Your task to perform on an android device: Open location settings Image 0: 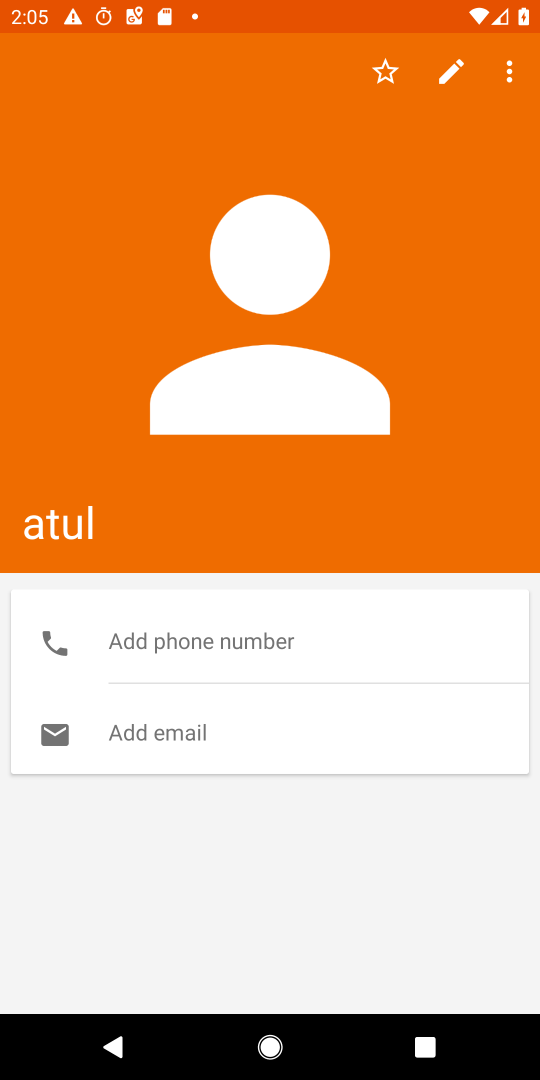
Step 0: press home button
Your task to perform on an android device: Open location settings Image 1: 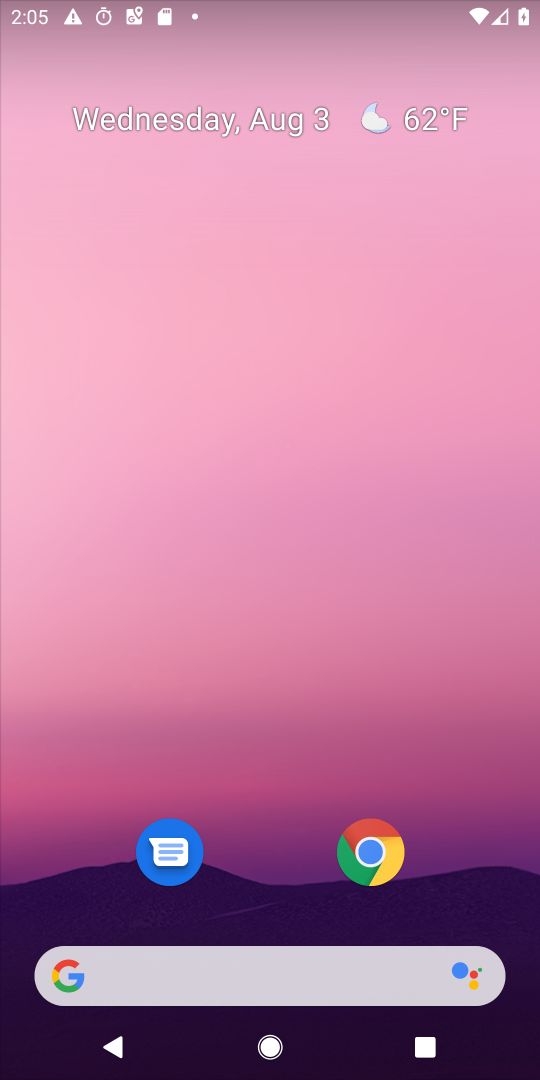
Step 1: drag from (442, 644) to (275, 5)
Your task to perform on an android device: Open location settings Image 2: 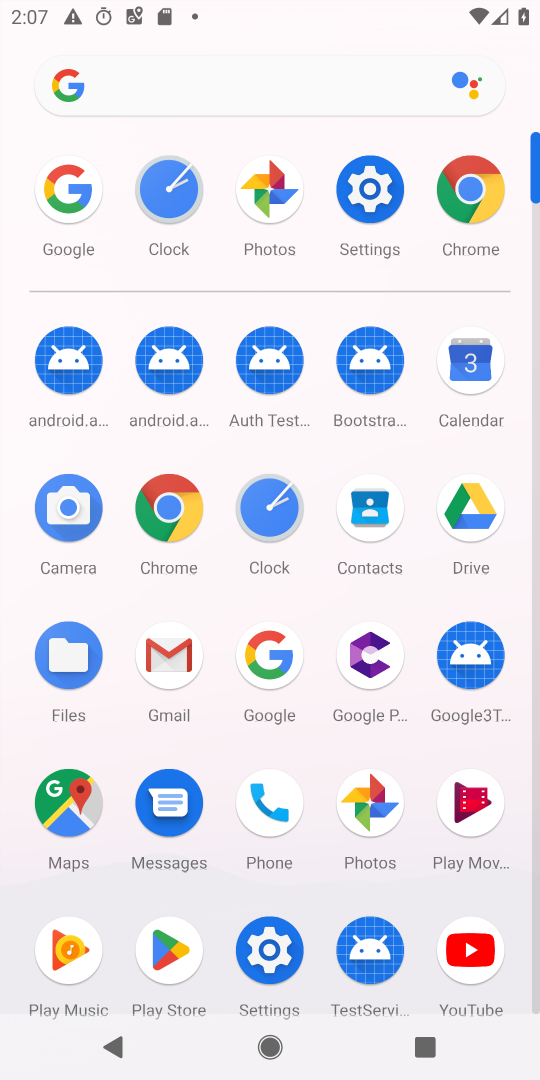
Step 2: click (278, 976)
Your task to perform on an android device: Open location settings Image 3: 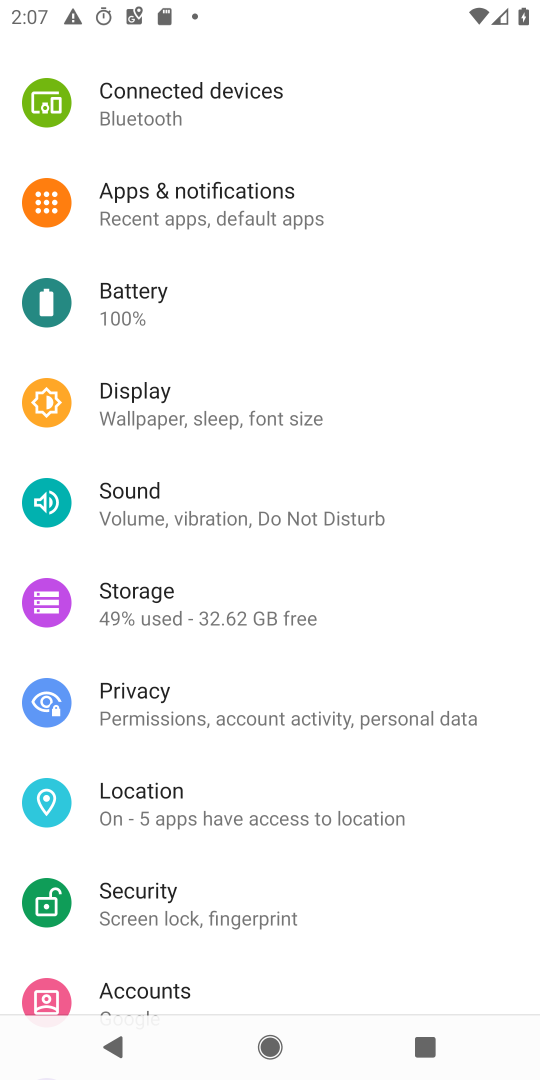
Step 3: click (207, 820)
Your task to perform on an android device: Open location settings Image 4: 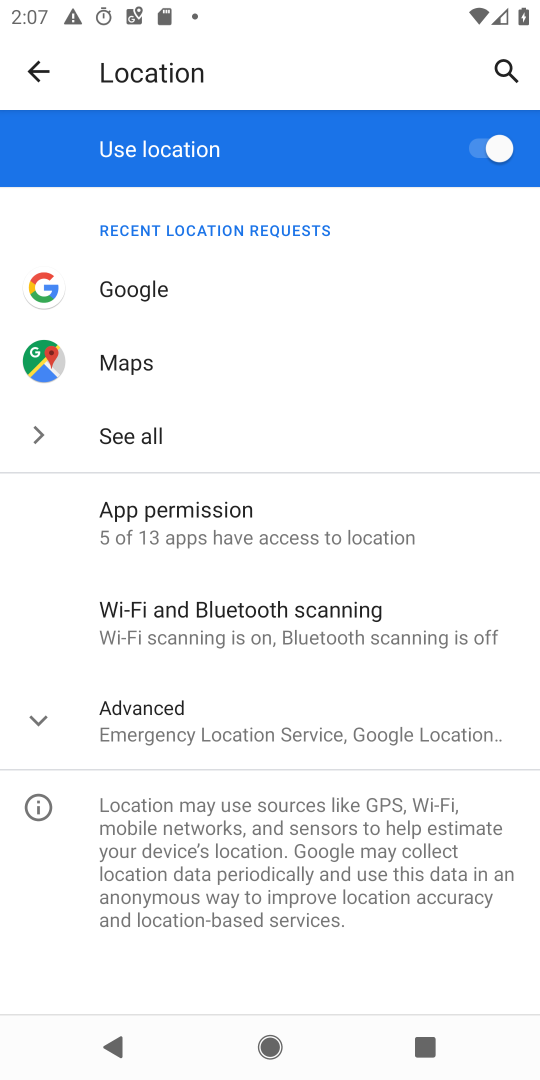
Step 4: click (132, 742)
Your task to perform on an android device: Open location settings Image 5: 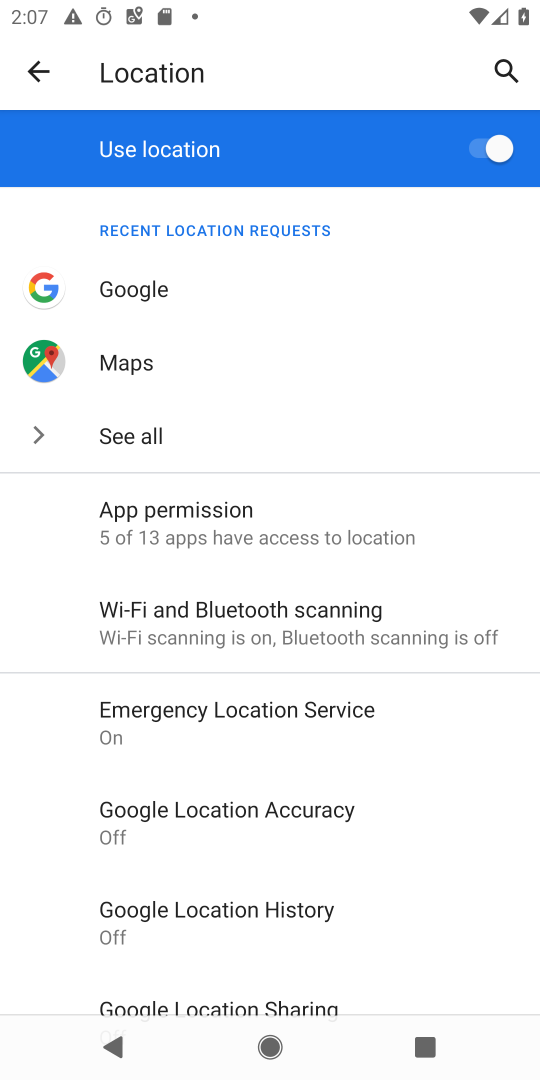
Step 5: task complete